Your task to perform on an android device: Open notification settings Image 0: 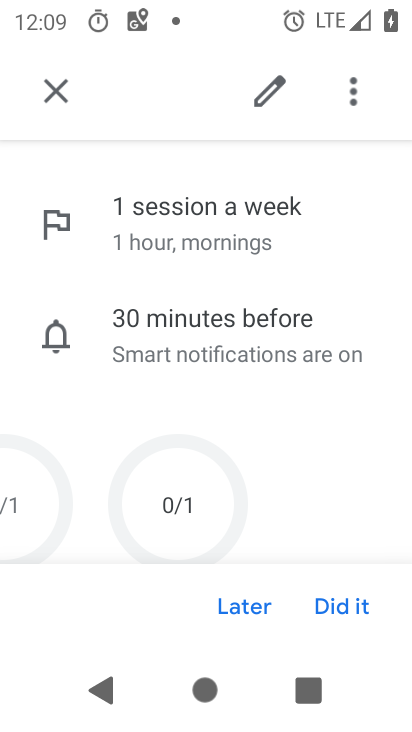
Step 0: press home button
Your task to perform on an android device: Open notification settings Image 1: 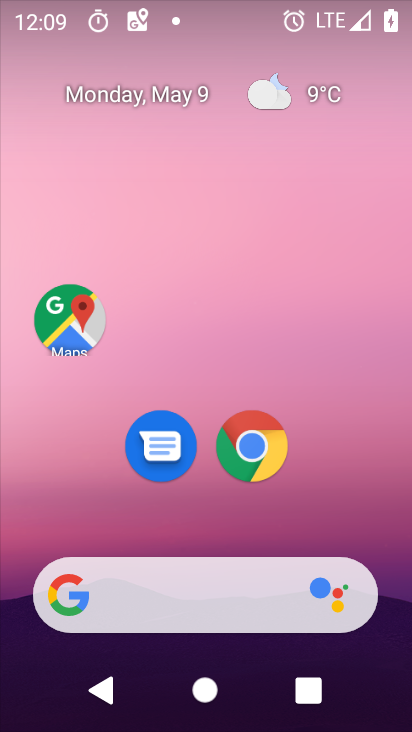
Step 1: drag from (382, 503) to (365, 3)
Your task to perform on an android device: Open notification settings Image 2: 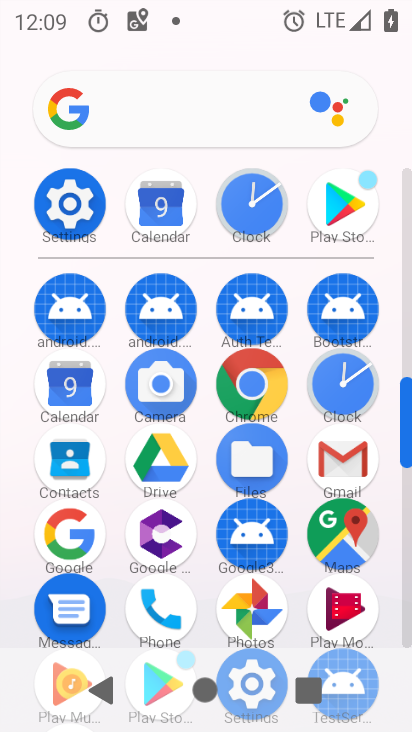
Step 2: click (73, 215)
Your task to perform on an android device: Open notification settings Image 3: 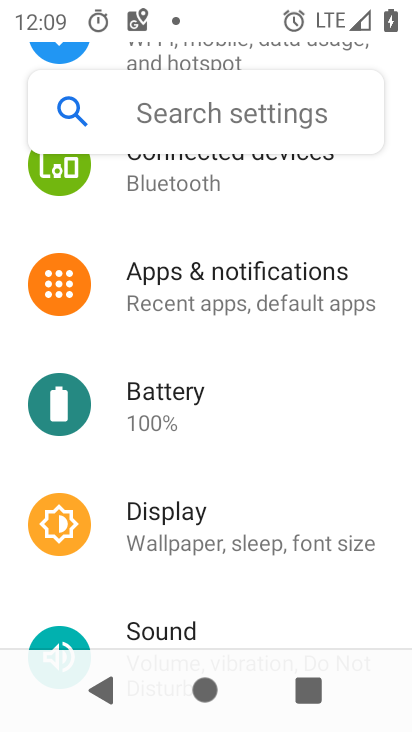
Step 3: drag from (263, 366) to (279, 549)
Your task to perform on an android device: Open notification settings Image 4: 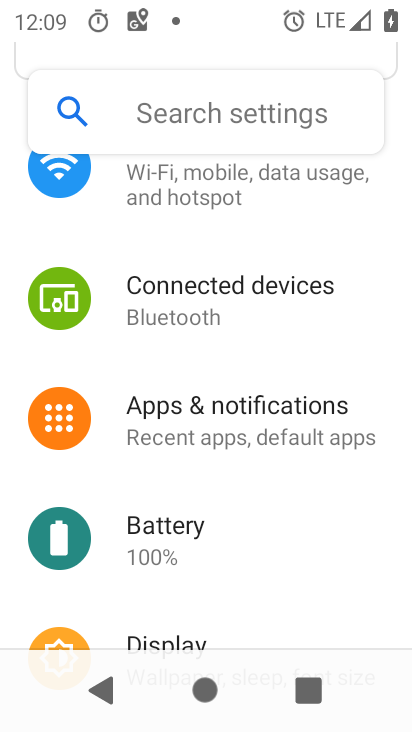
Step 4: click (242, 417)
Your task to perform on an android device: Open notification settings Image 5: 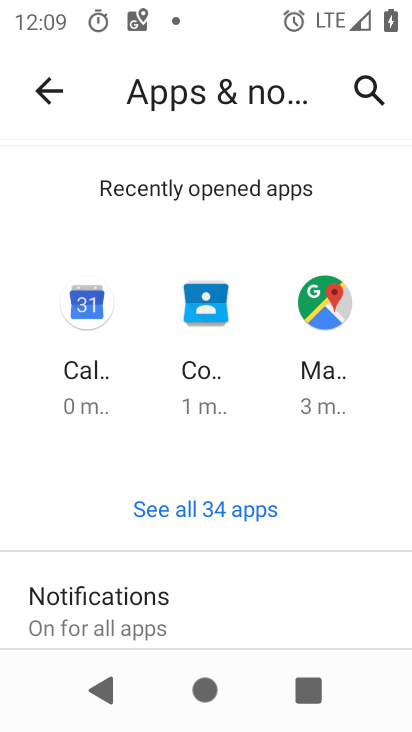
Step 5: task complete